Your task to perform on an android device: toggle sleep mode Image 0: 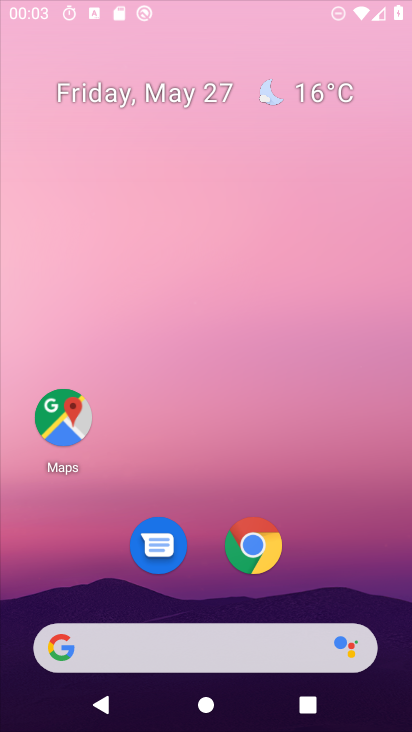
Step 0: press home button
Your task to perform on an android device: toggle sleep mode Image 1: 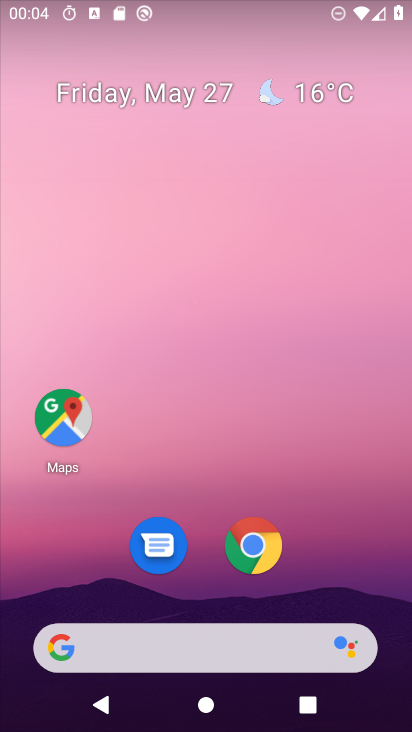
Step 1: drag from (317, 584) to (319, 67)
Your task to perform on an android device: toggle sleep mode Image 2: 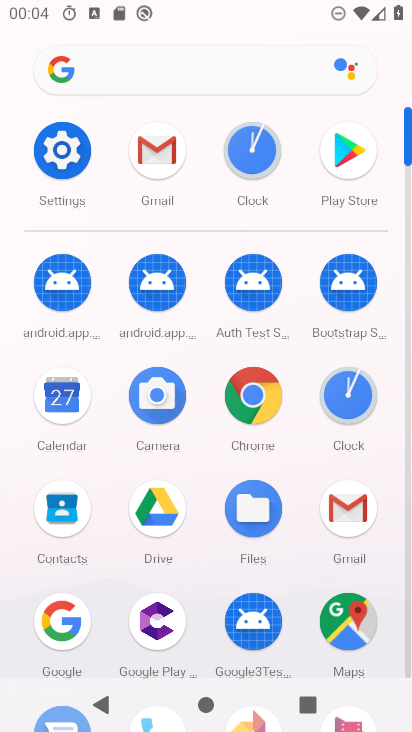
Step 2: click (67, 156)
Your task to perform on an android device: toggle sleep mode Image 3: 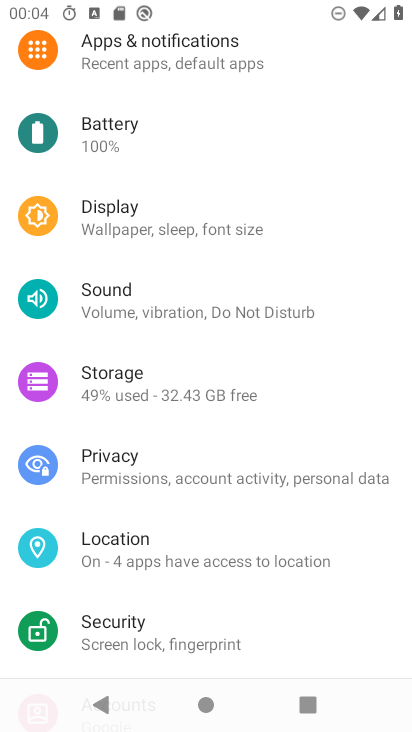
Step 3: click (125, 234)
Your task to perform on an android device: toggle sleep mode Image 4: 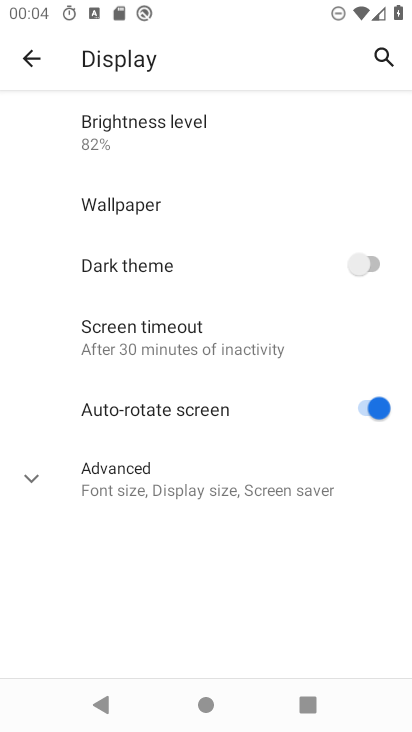
Step 4: task complete